Your task to perform on an android device: open app "Facebook" Image 0: 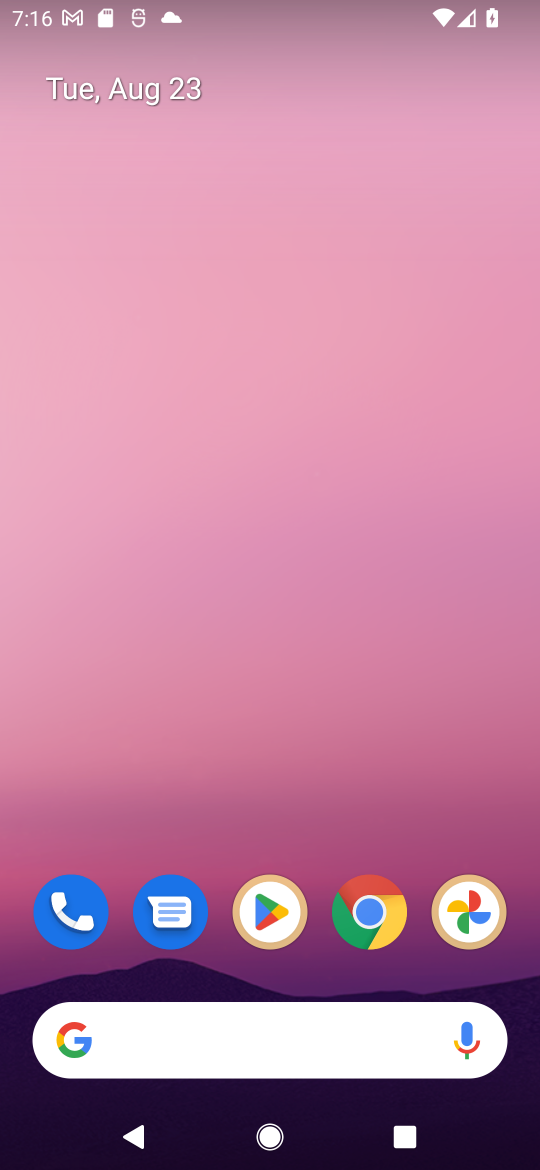
Step 0: click (267, 906)
Your task to perform on an android device: open app "Facebook" Image 1: 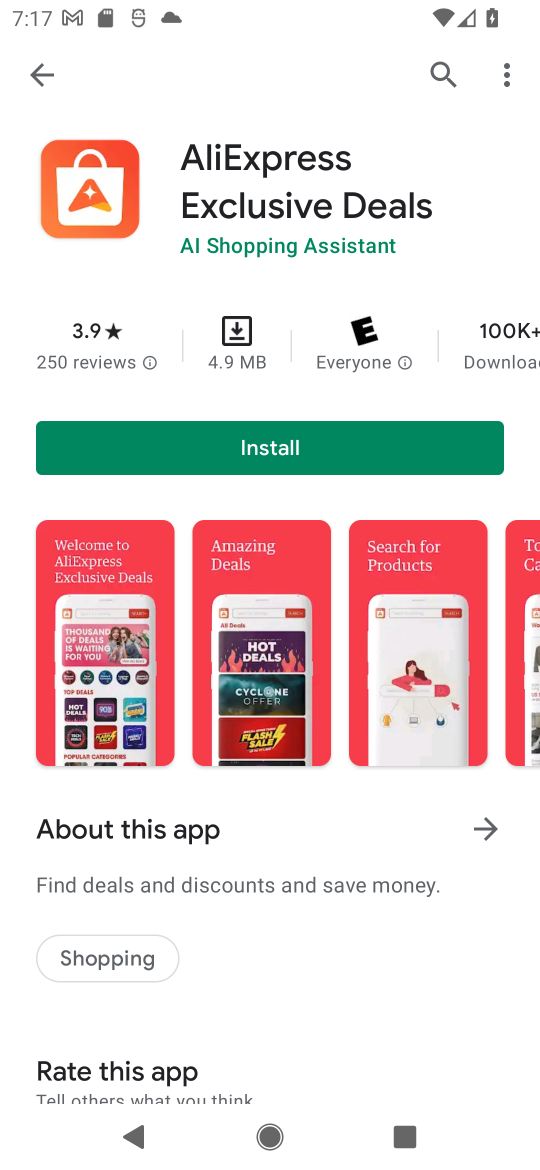
Step 1: click (432, 67)
Your task to perform on an android device: open app "Facebook" Image 2: 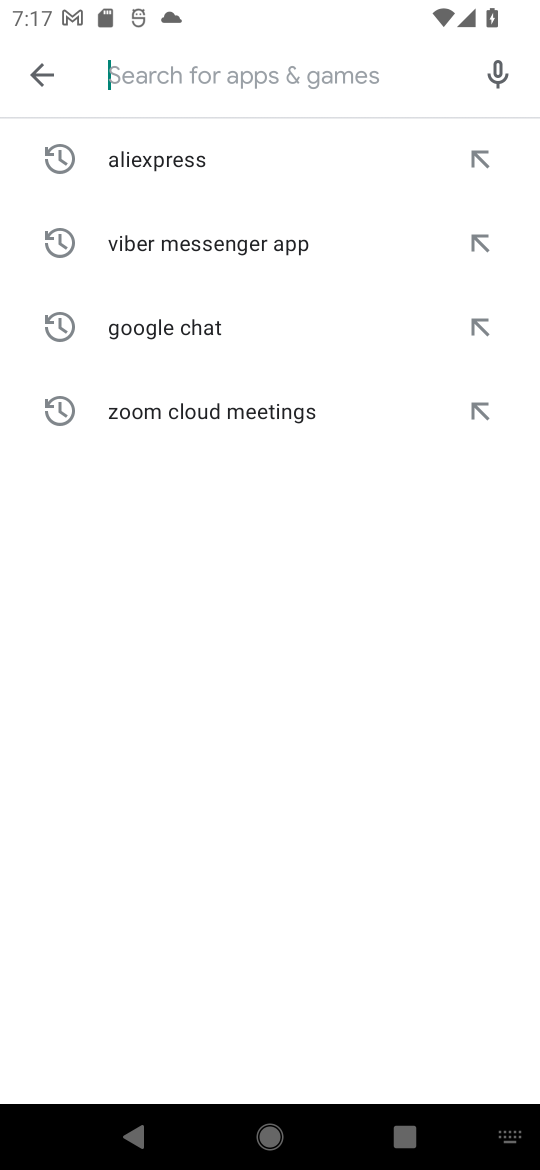
Step 2: type "Facebook"
Your task to perform on an android device: open app "Facebook" Image 3: 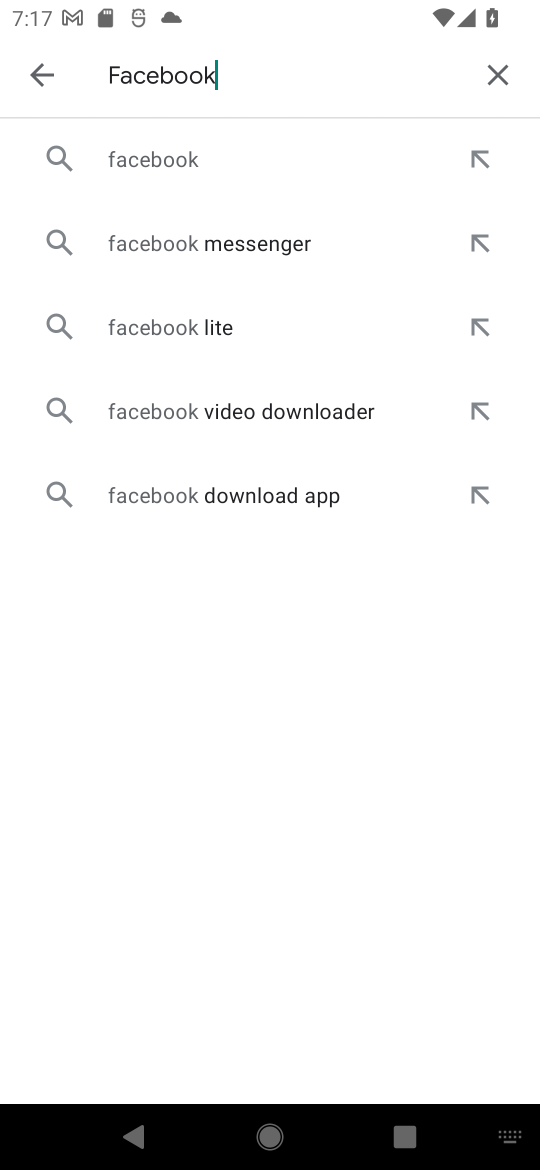
Step 3: click (152, 158)
Your task to perform on an android device: open app "Facebook" Image 4: 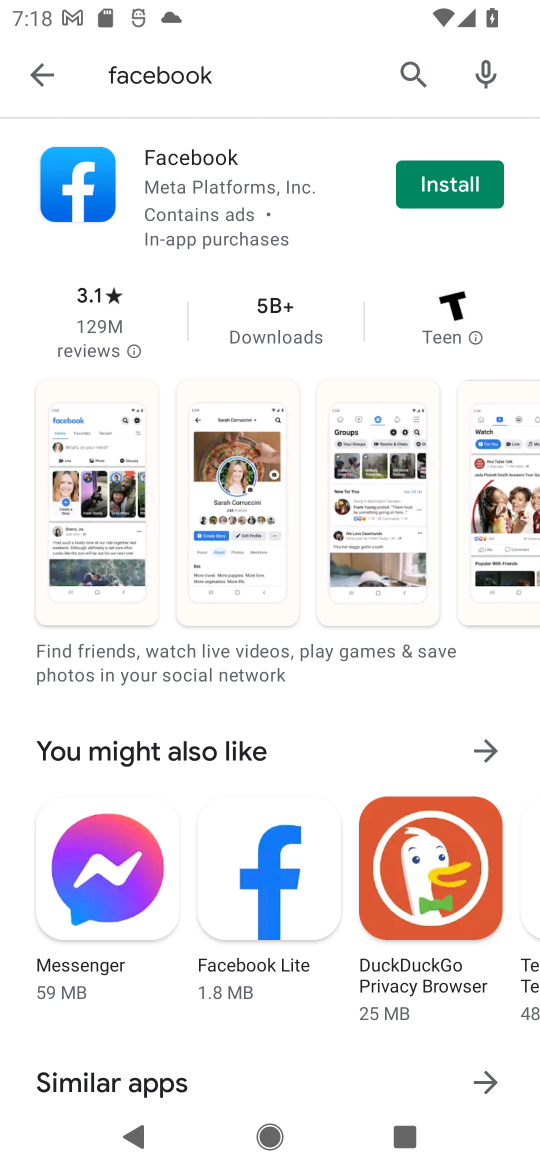
Step 4: task complete